Your task to perform on an android device: open sync settings in chrome Image 0: 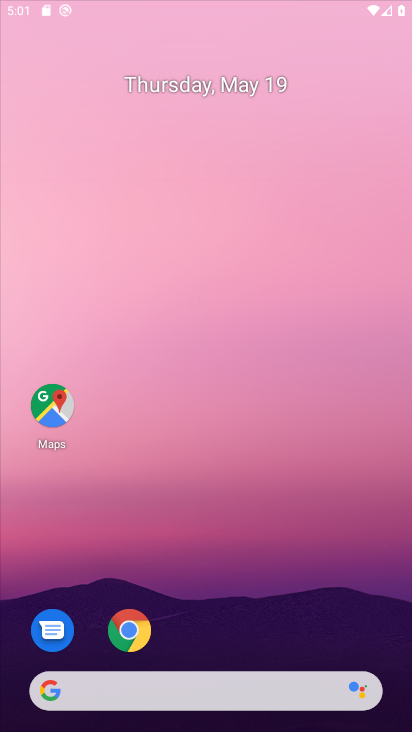
Step 0: drag from (277, 463) to (266, 16)
Your task to perform on an android device: open sync settings in chrome Image 1: 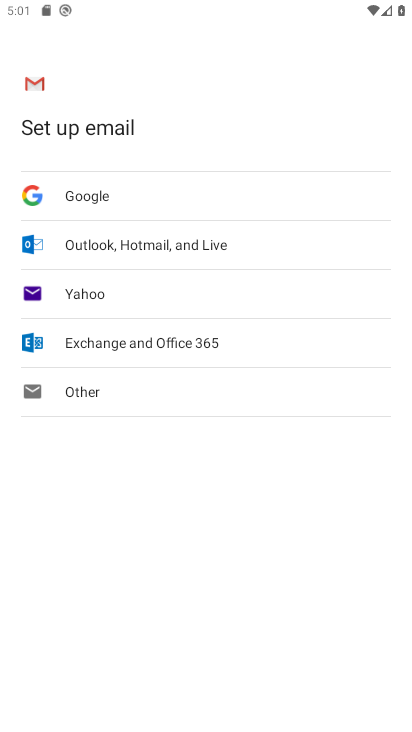
Step 1: press back button
Your task to perform on an android device: open sync settings in chrome Image 2: 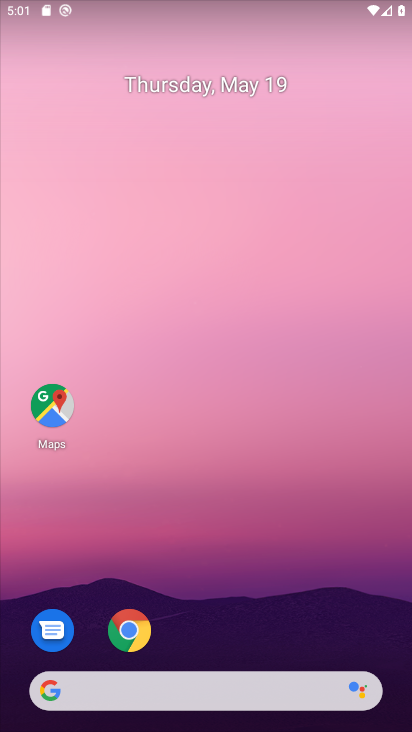
Step 2: drag from (284, 519) to (236, 13)
Your task to perform on an android device: open sync settings in chrome Image 3: 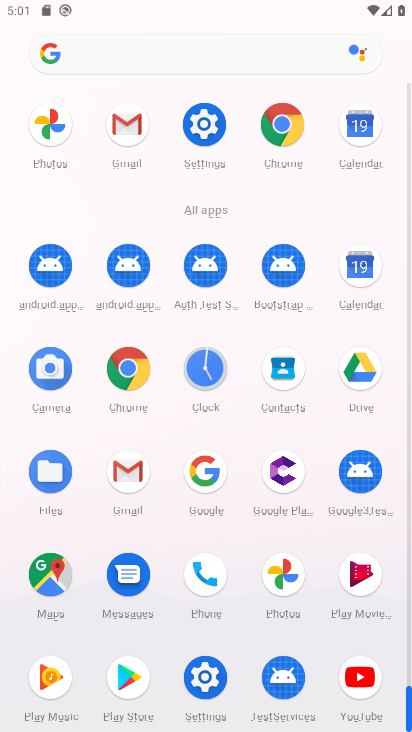
Step 3: drag from (0, 583) to (0, 265)
Your task to perform on an android device: open sync settings in chrome Image 4: 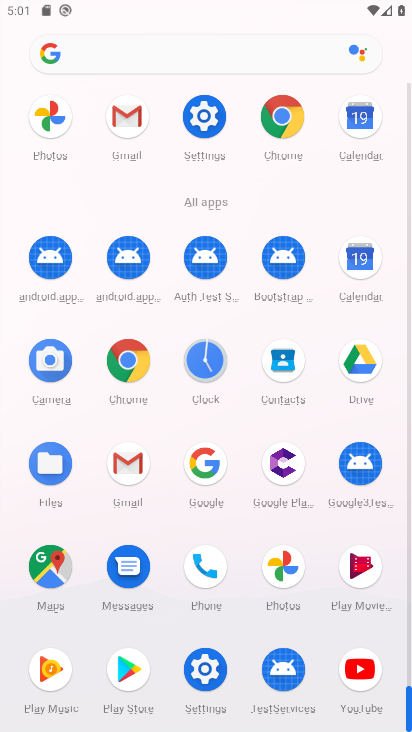
Step 4: click (128, 350)
Your task to perform on an android device: open sync settings in chrome Image 5: 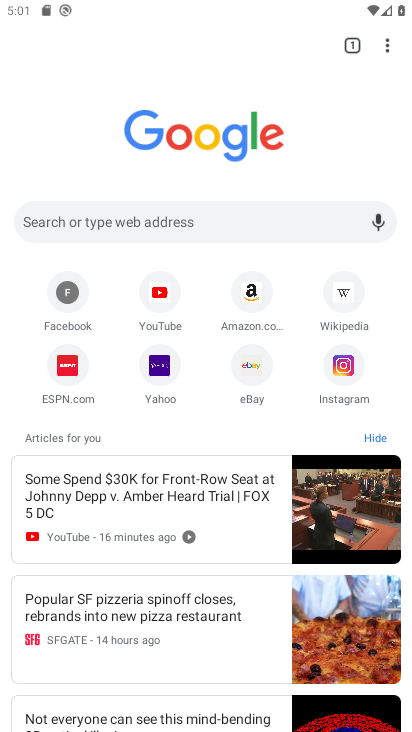
Step 5: drag from (387, 43) to (239, 376)
Your task to perform on an android device: open sync settings in chrome Image 6: 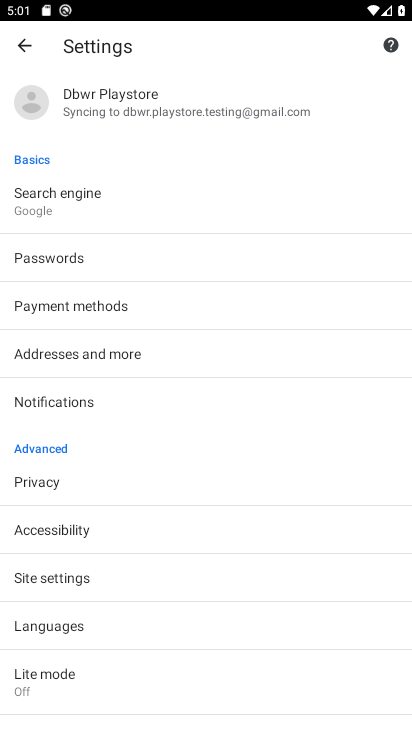
Step 6: click (82, 108)
Your task to perform on an android device: open sync settings in chrome Image 7: 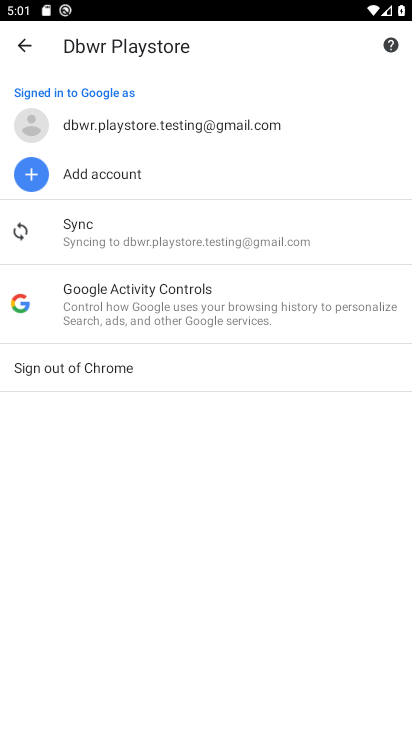
Step 7: click (136, 244)
Your task to perform on an android device: open sync settings in chrome Image 8: 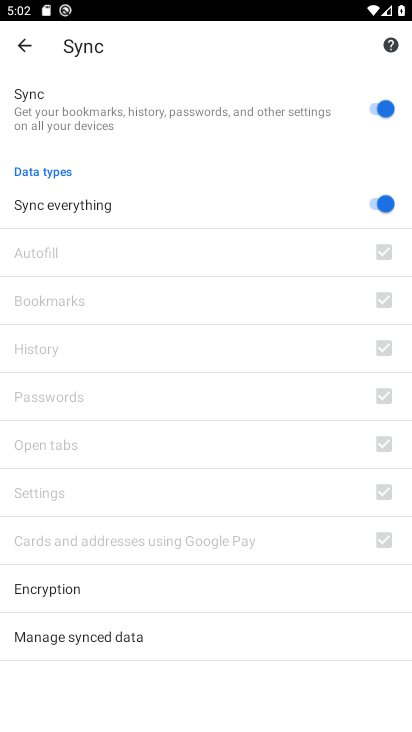
Step 8: task complete